Your task to perform on an android device: empty trash in google photos Image 0: 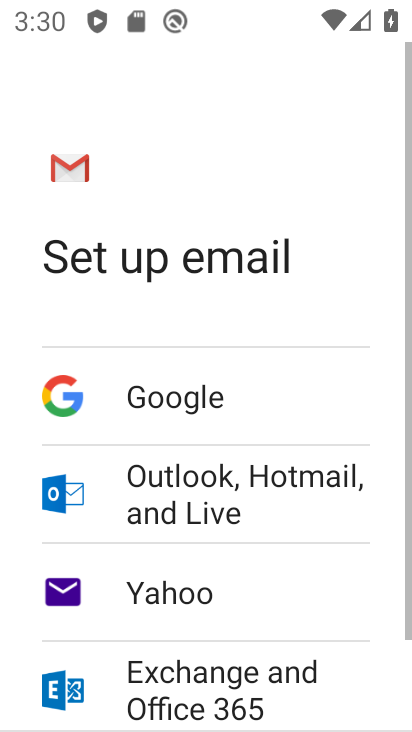
Step 0: press back button
Your task to perform on an android device: empty trash in google photos Image 1: 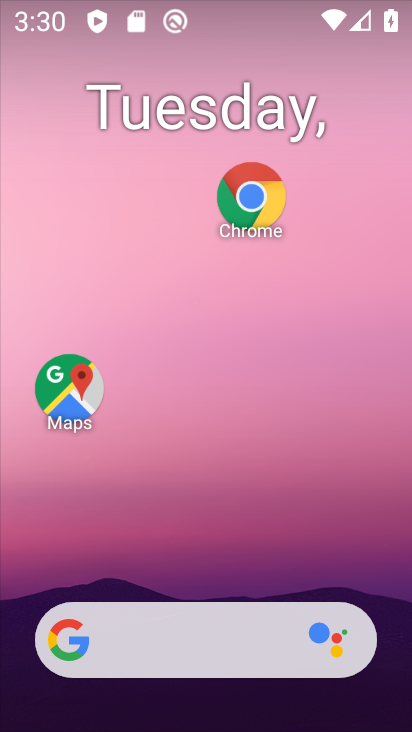
Step 1: drag from (227, 570) to (211, 159)
Your task to perform on an android device: empty trash in google photos Image 2: 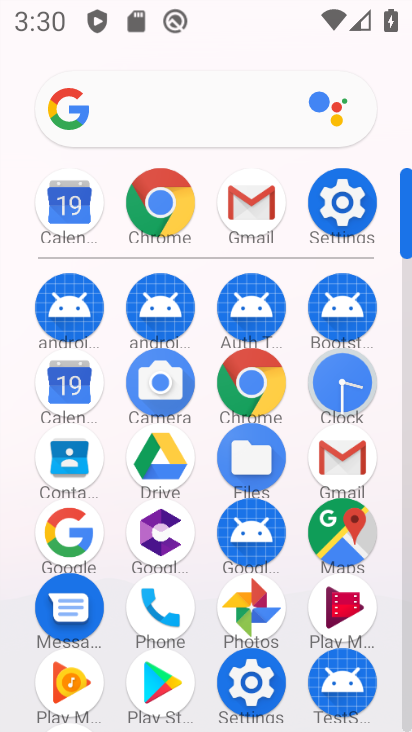
Step 2: click (246, 601)
Your task to perform on an android device: empty trash in google photos Image 3: 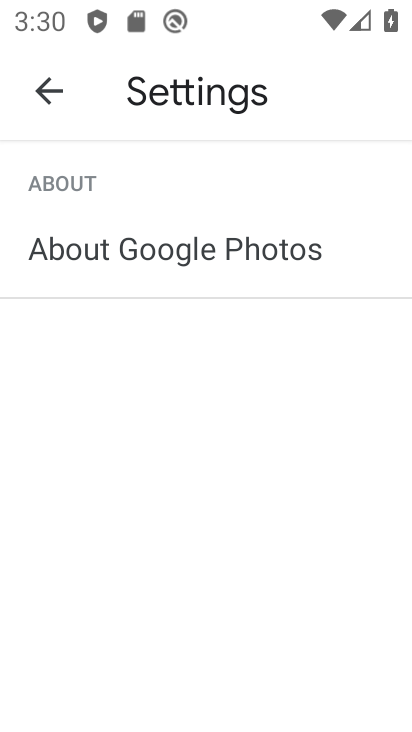
Step 3: click (45, 85)
Your task to perform on an android device: empty trash in google photos Image 4: 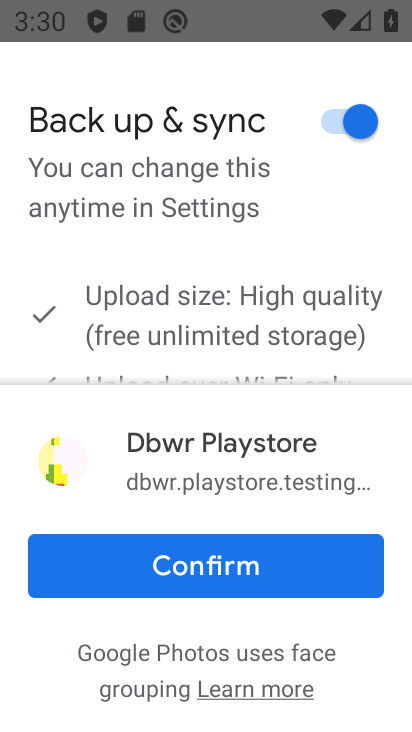
Step 4: click (47, 79)
Your task to perform on an android device: empty trash in google photos Image 5: 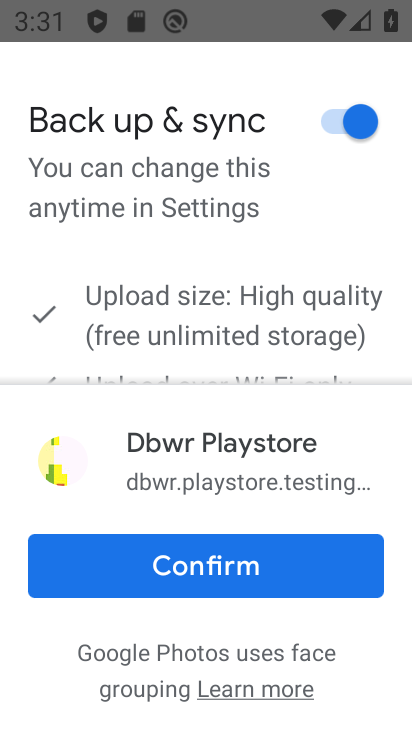
Step 5: click (221, 561)
Your task to perform on an android device: empty trash in google photos Image 6: 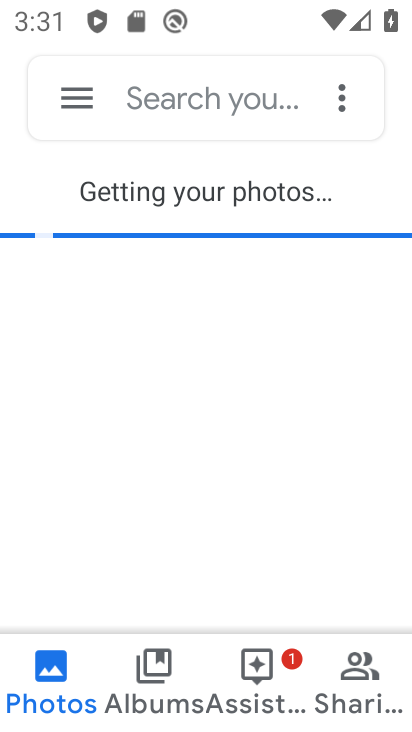
Step 6: click (72, 101)
Your task to perform on an android device: empty trash in google photos Image 7: 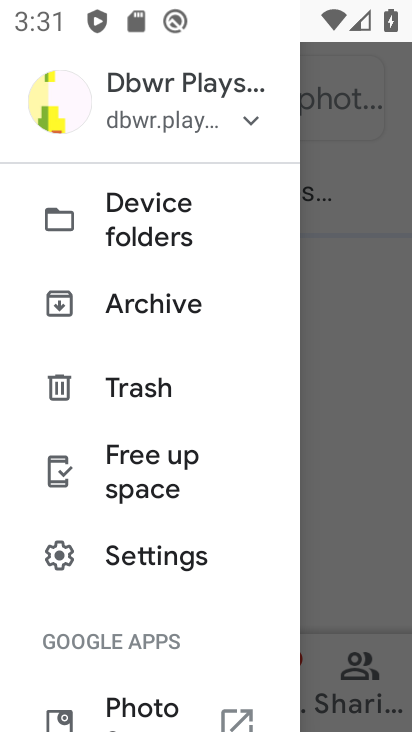
Step 7: click (124, 385)
Your task to perform on an android device: empty trash in google photos Image 8: 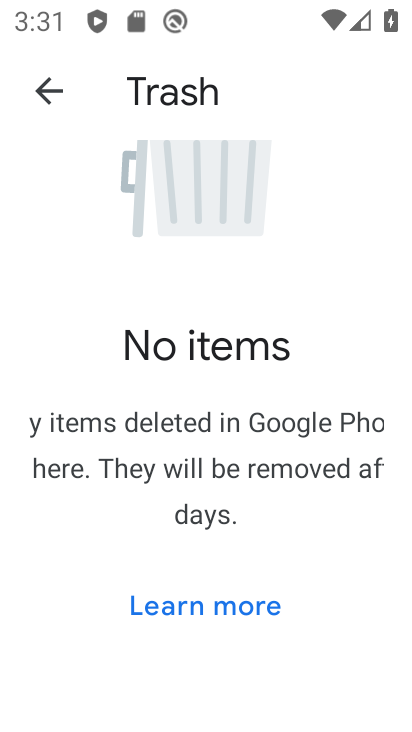
Step 8: task complete